Your task to perform on an android device: Open Youtube and go to the subscriptions tab Image 0: 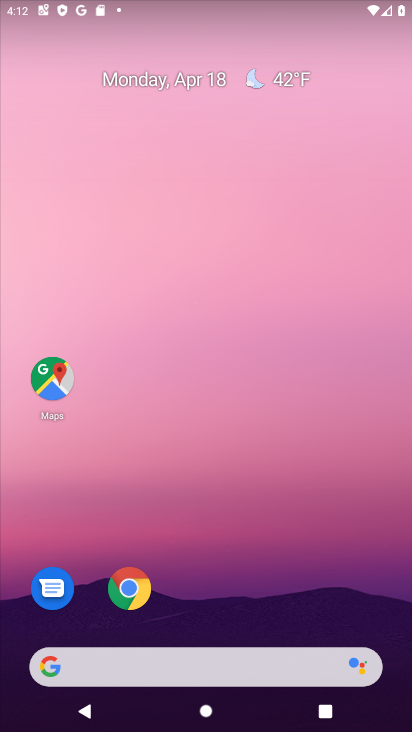
Step 0: drag from (236, 594) to (289, 150)
Your task to perform on an android device: Open Youtube and go to the subscriptions tab Image 1: 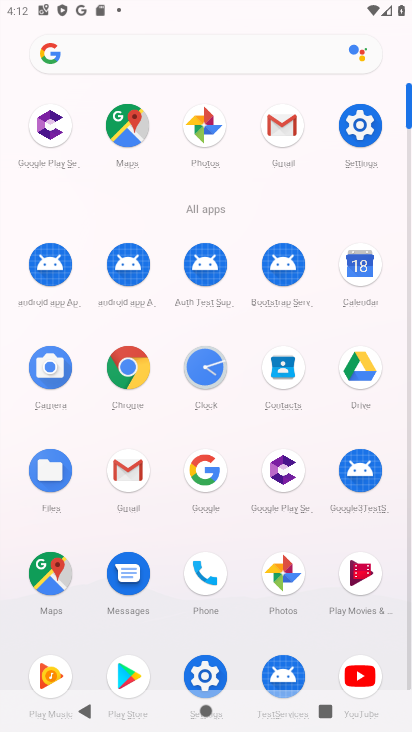
Step 1: drag from (262, 538) to (285, 155)
Your task to perform on an android device: Open Youtube and go to the subscriptions tab Image 2: 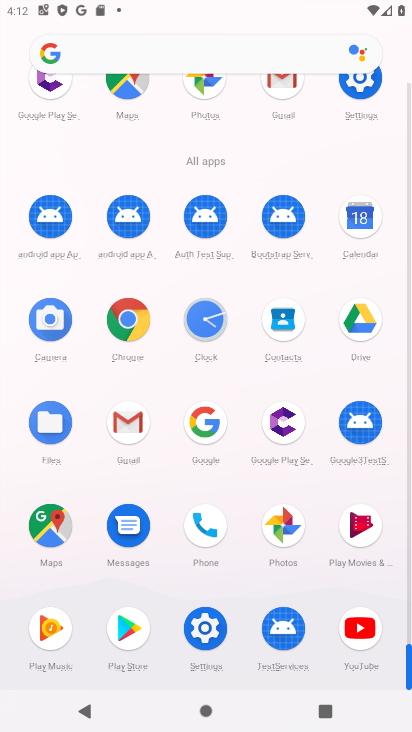
Step 2: click (356, 603)
Your task to perform on an android device: Open Youtube and go to the subscriptions tab Image 3: 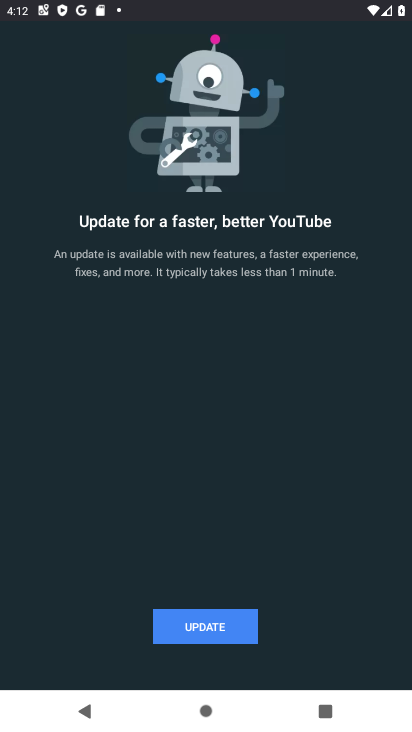
Step 3: click (234, 630)
Your task to perform on an android device: Open Youtube and go to the subscriptions tab Image 4: 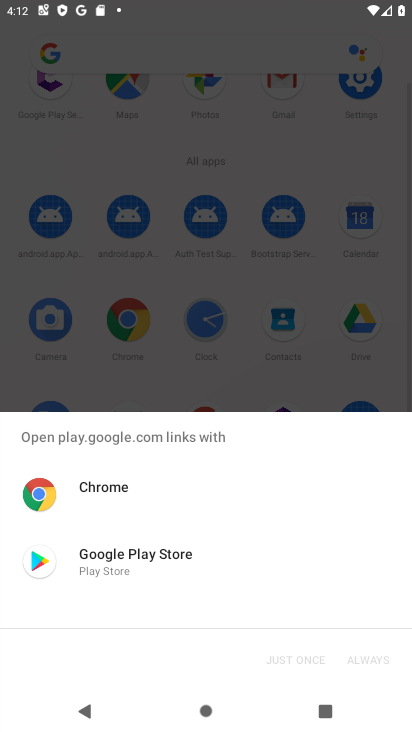
Step 4: click (143, 494)
Your task to perform on an android device: Open Youtube and go to the subscriptions tab Image 5: 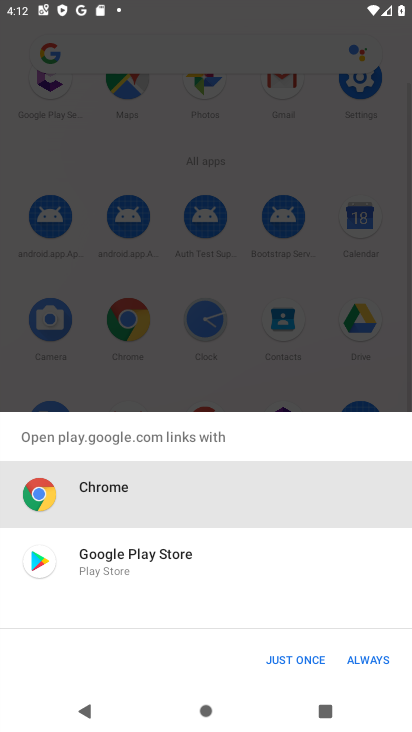
Step 5: click (314, 656)
Your task to perform on an android device: Open Youtube and go to the subscriptions tab Image 6: 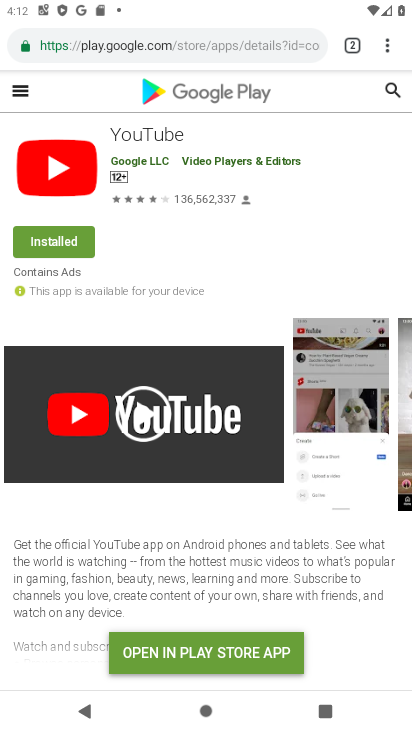
Step 6: task complete